Your task to perform on an android device: open wifi settings Image 0: 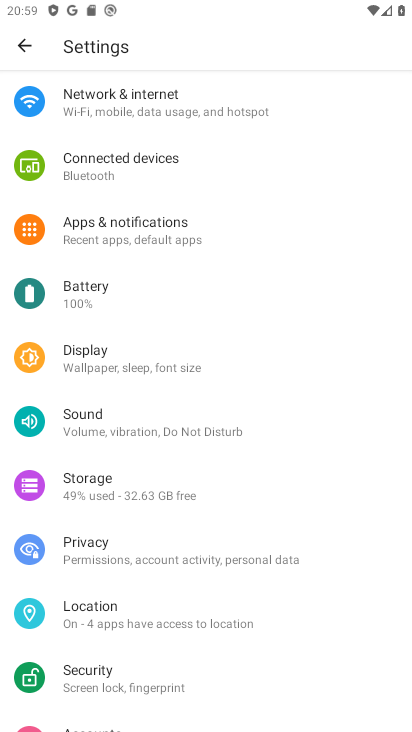
Step 0: click (131, 115)
Your task to perform on an android device: open wifi settings Image 1: 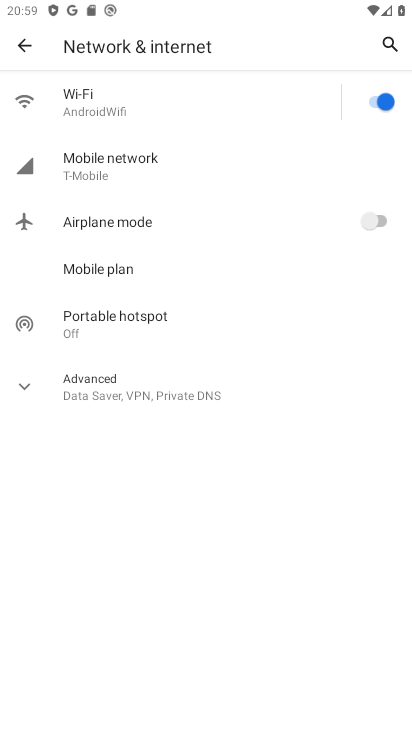
Step 1: click (134, 116)
Your task to perform on an android device: open wifi settings Image 2: 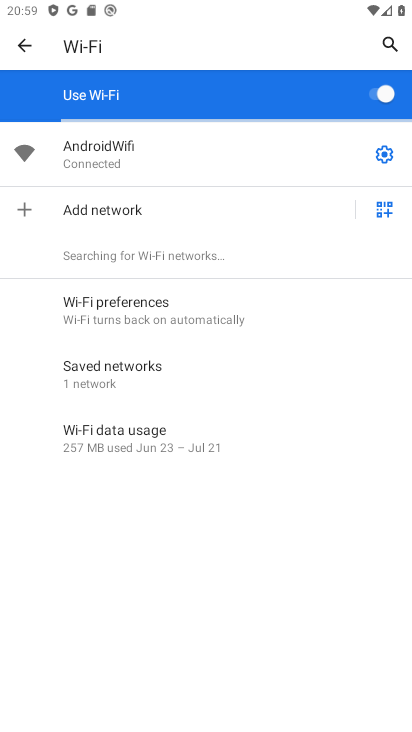
Step 2: click (391, 154)
Your task to perform on an android device: open wifi settings Image 3: 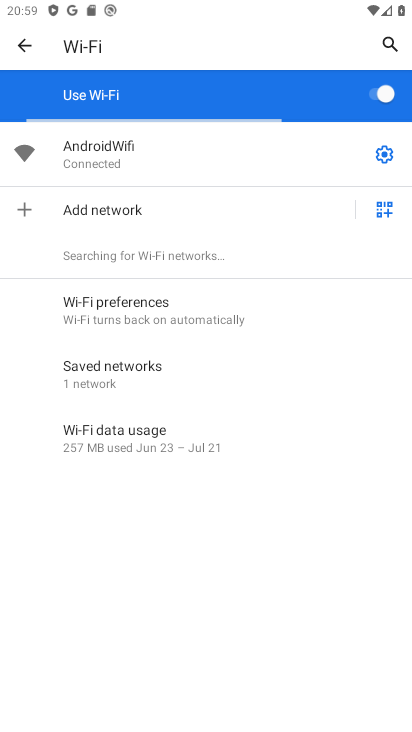
Step 3: click (387, 148)
Your task to perform on an android device: open wifi settings Image 4: 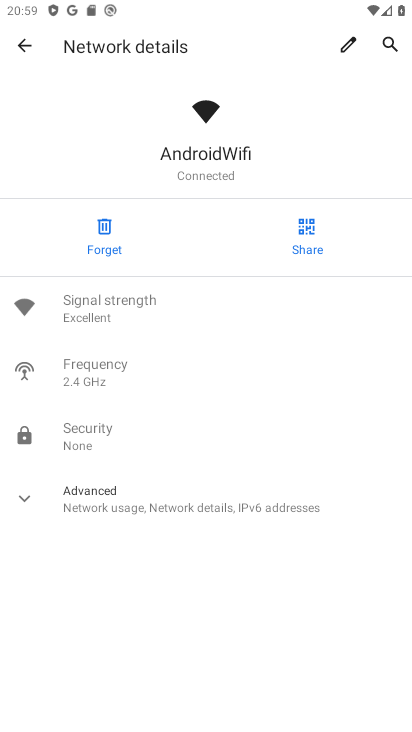
Step 4: task complete